Your task to perform on an android device: turn off airplane mode Image 0: 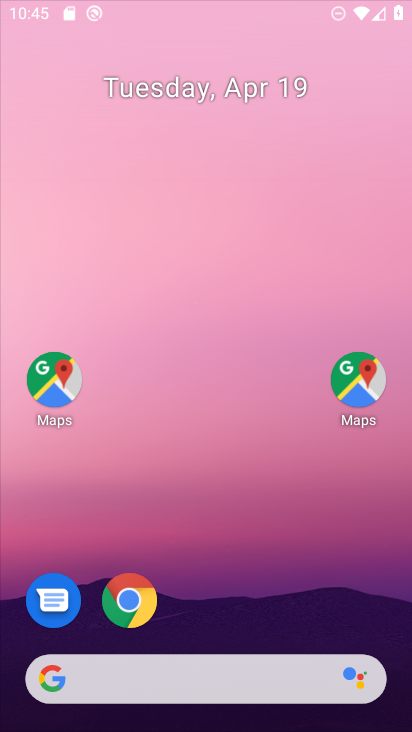
Step 0: click (356, 7)
Your task to perform on an android device: turn off airplane mode Image 1: 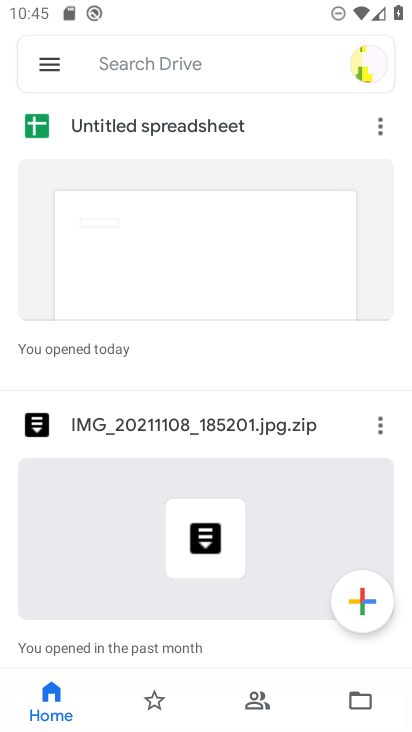
Step 1: task complete